Your task to perform on an android device: Open notification settings Image 0: 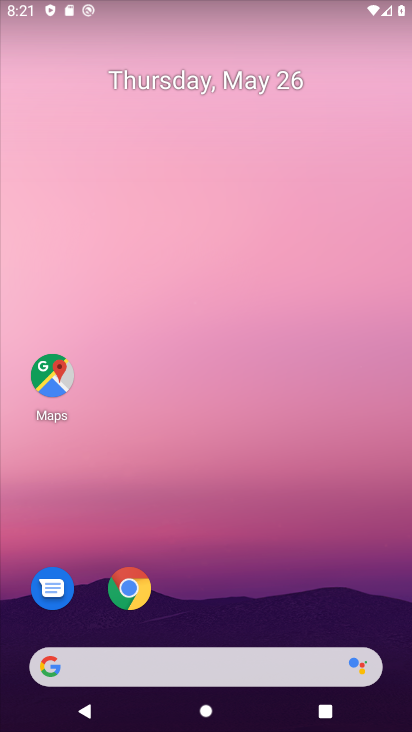
Step 0: drag from (251, 512) to (251, 61)
Your task to perform on an android device: Open notification settings Image 1: 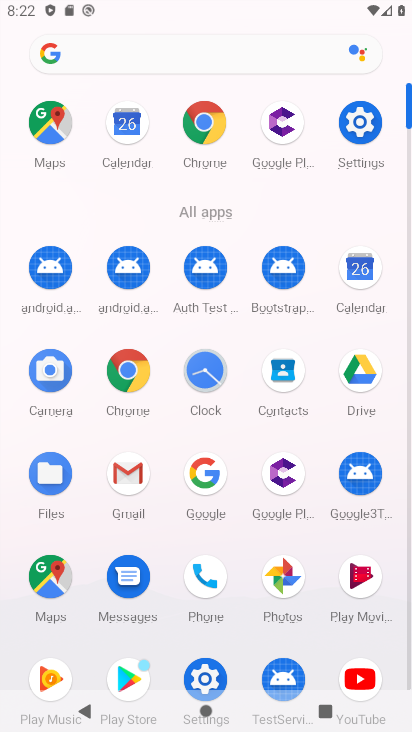
Step 1: click (361, 129)
Your task to perform on an android device: Open notification settings Image 2: 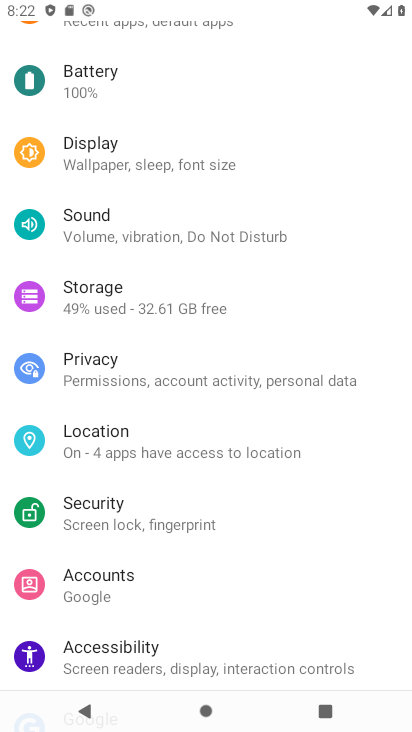
Step 2: drag from (152, 216) to (233, 650)
Your task to perform on an android device: Open notification settings Image 3: 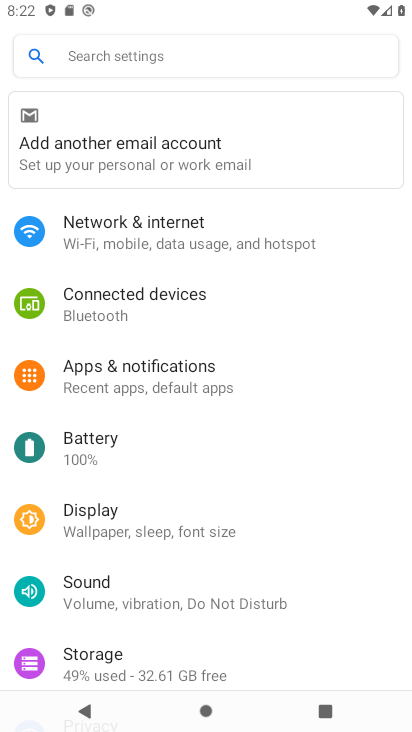
Step 3: click (158, 379)
Your task to perform on an android device: Open notification settings Image 4: 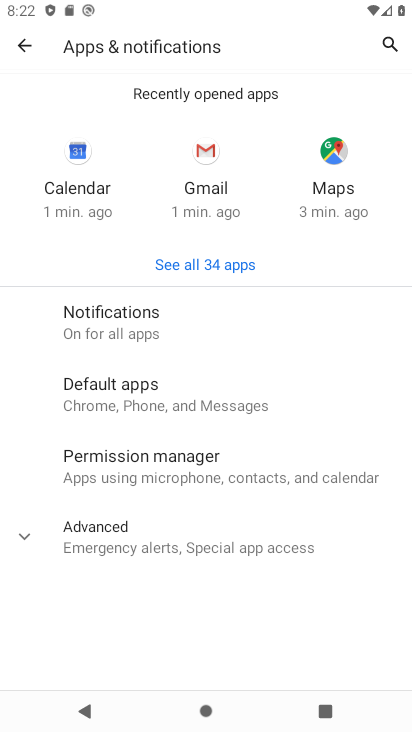
Step 4: click (103, 331)
Your task to perform on an android device: Open notification settings Image 5: 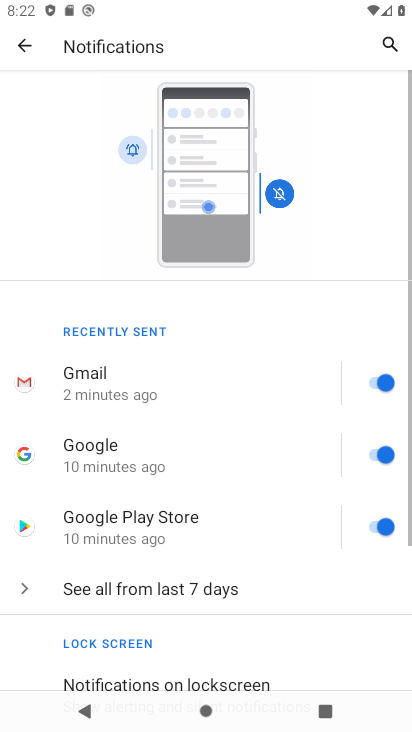
Step 5: task complete